Your task to perform on an android device: Open Google Chrome Image 0: 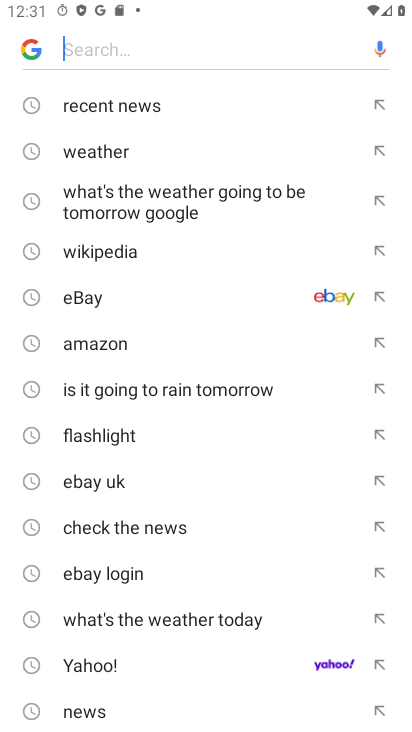
Step 0: drag from (250, 636) to (318, 349)
Your task to perform on an android device: Open Google Chrome Image 1: 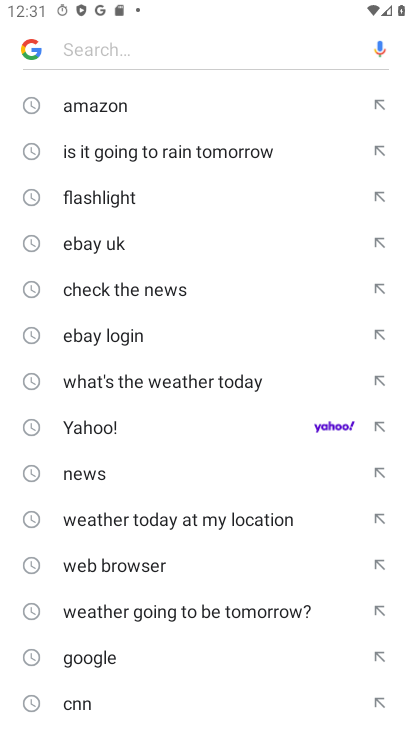
Step 1: press home button
Your task to perform on an android device: Open Google Chrome Image 2: 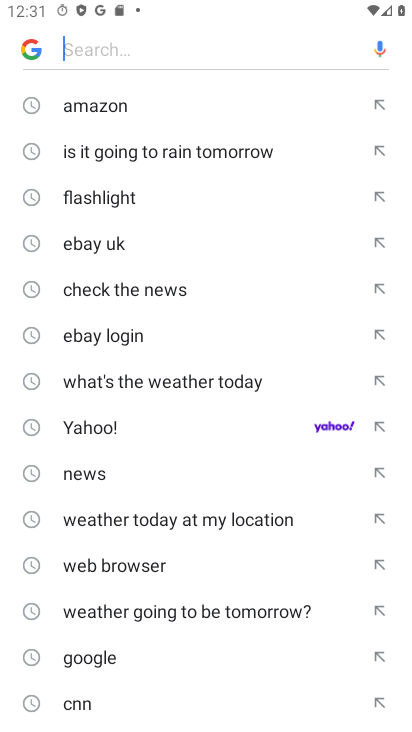
Step 2: press home button
Your task to perform on an android device: Open Google Chrome Image 3: 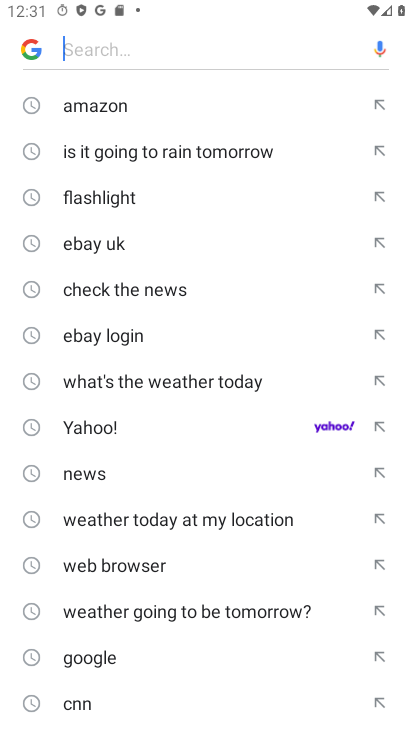
Step 3: drag from (208, 319) to (230, 165)
Your task to perform on an android device: Open Google Chrome Image 4: 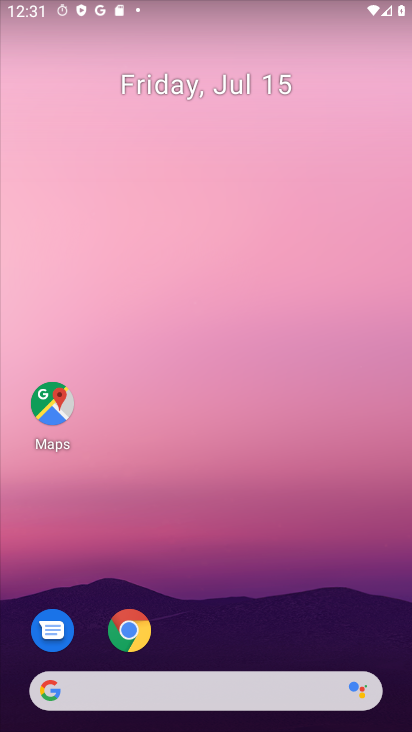
Step 4: drag from (211, 642) to (286, 218)
Your task to perform on an android device: Open Google Chrome Image 5: 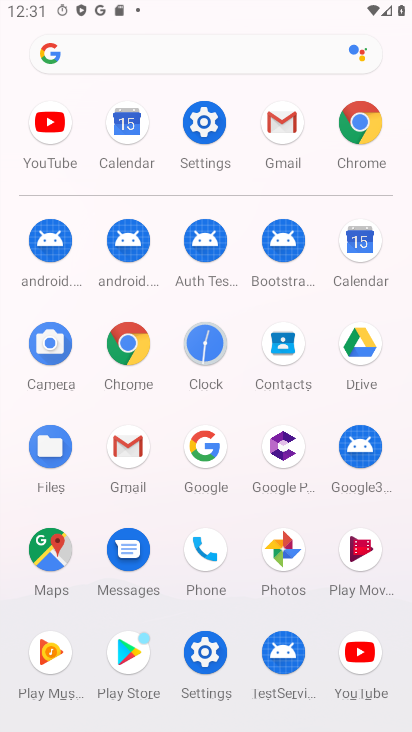
Step 5: click (126, 359)
Your task to perform on an android device: Open Google Chrome Image 6: 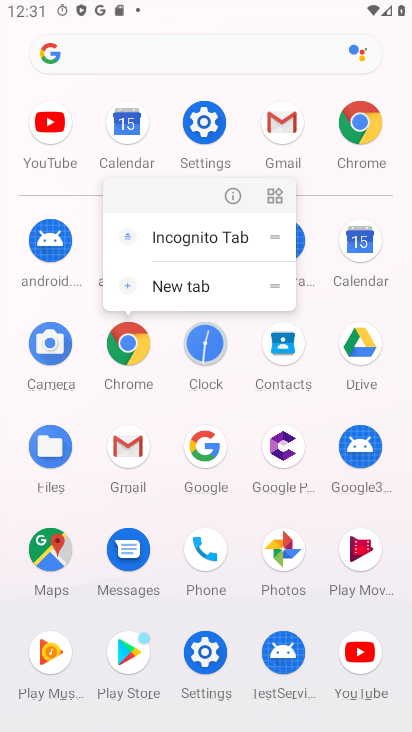
Step 6: click (231, 199)
Your task to perform on an android device: Open Google Chrome Image 7: 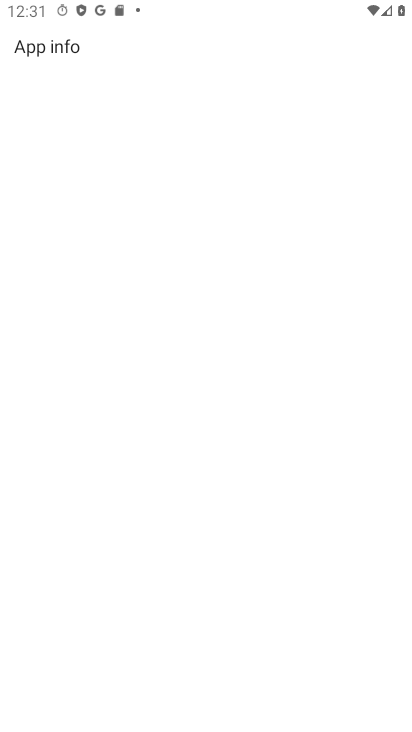
Step 7: drag from (204, 591) to (188, 245)
Your task to perform on an android device: Open Google Chrome Image 8: 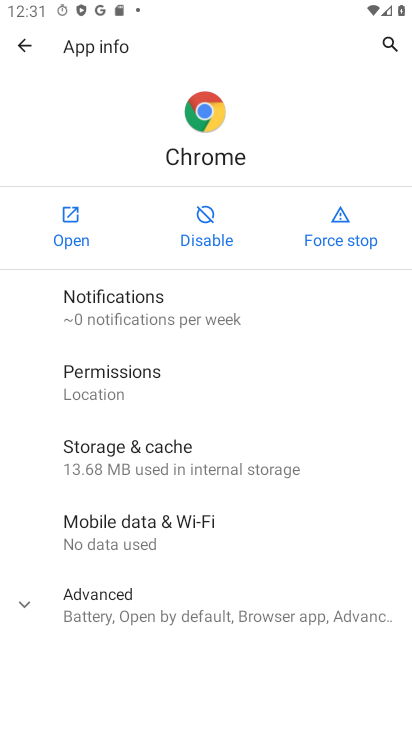
Step 8: click (70, 235)
Your task to perform on an android device: Open Google Chrome Image 9: 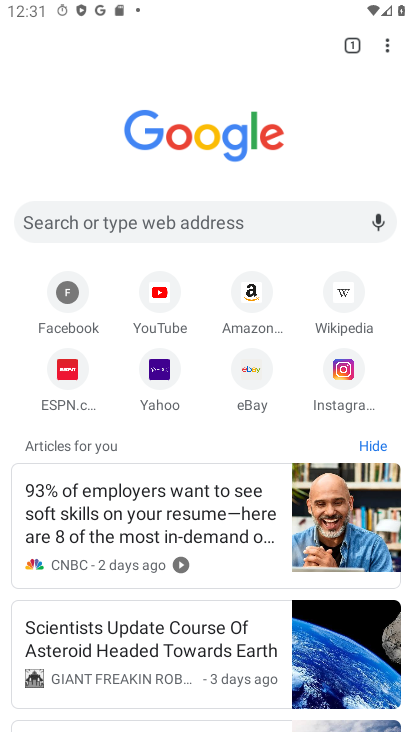
Step 9: task complete